Your task to perform on an android device: snooze an email in the gmail app Image 0: 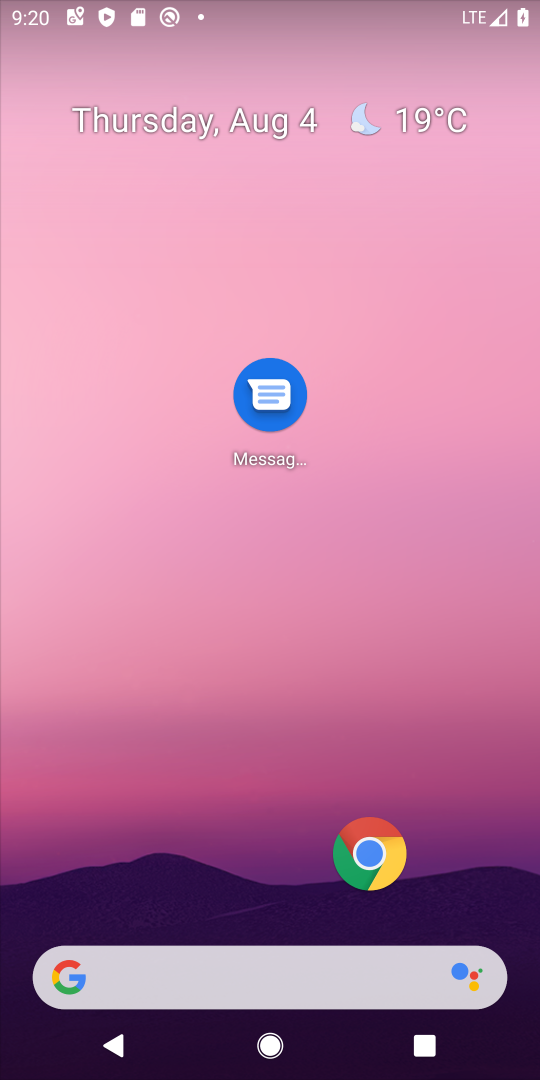
Step 0: drag from (215, 817) to (205, 380)
Your task to perform on an android device: snooze an email in the gmail app Image 1: 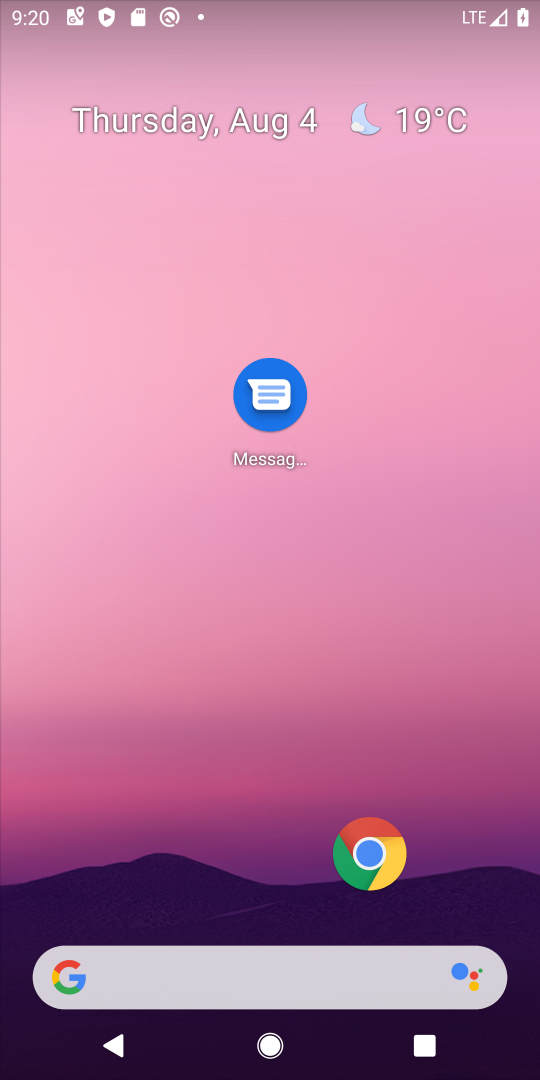
Step 1: drag from (264, 959) to (254, 288)
Your task to perform on an android device: snooze an email in the gmail app Image 2: 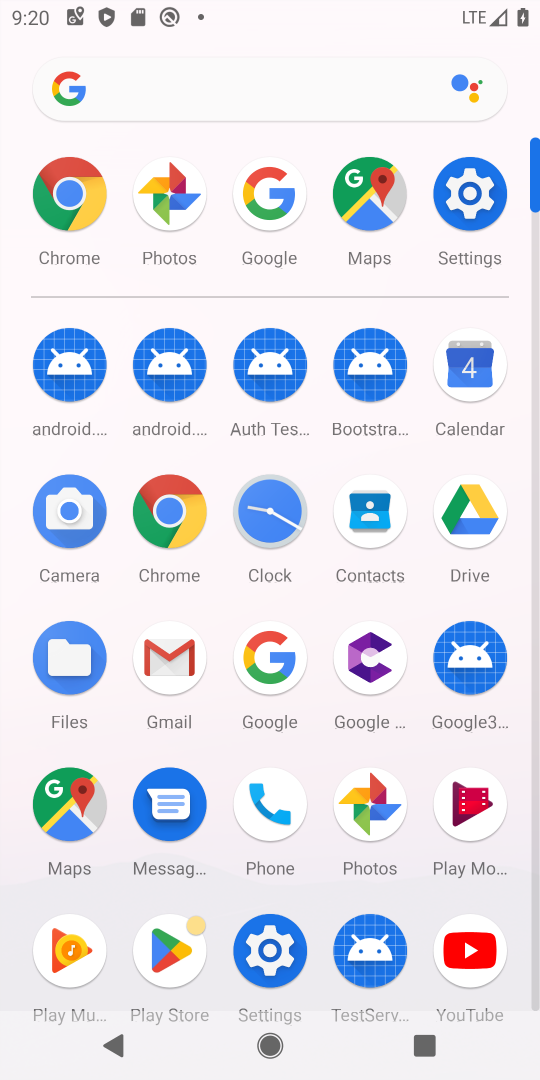
Step 2: click (166, 659)
Your task to perform on an android device: snooze an email in the gmail app Image 3: 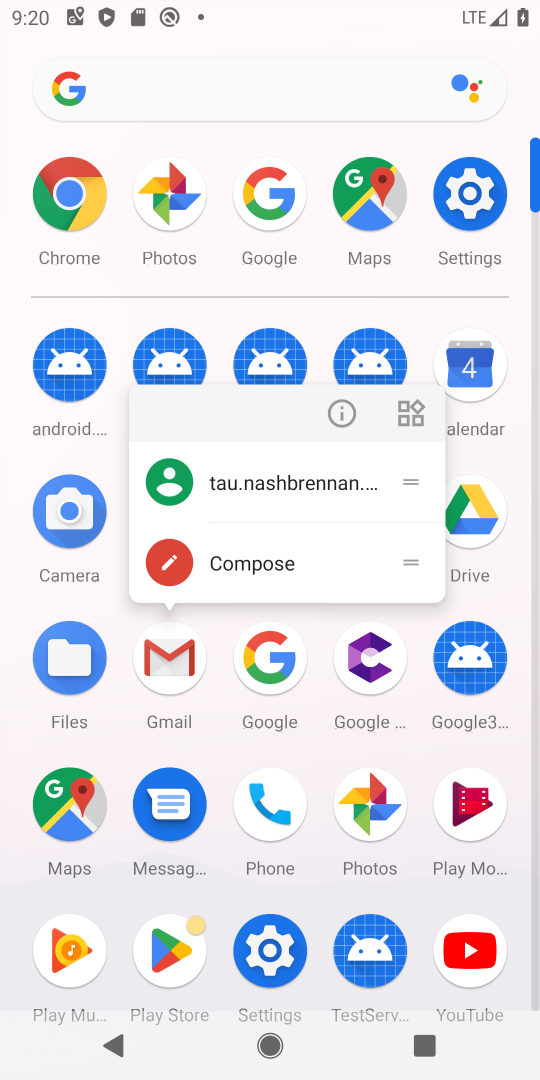
Step 3: click (166, 659)
Your task to perform on an android device: snooze an email in the gmail app Image 4: 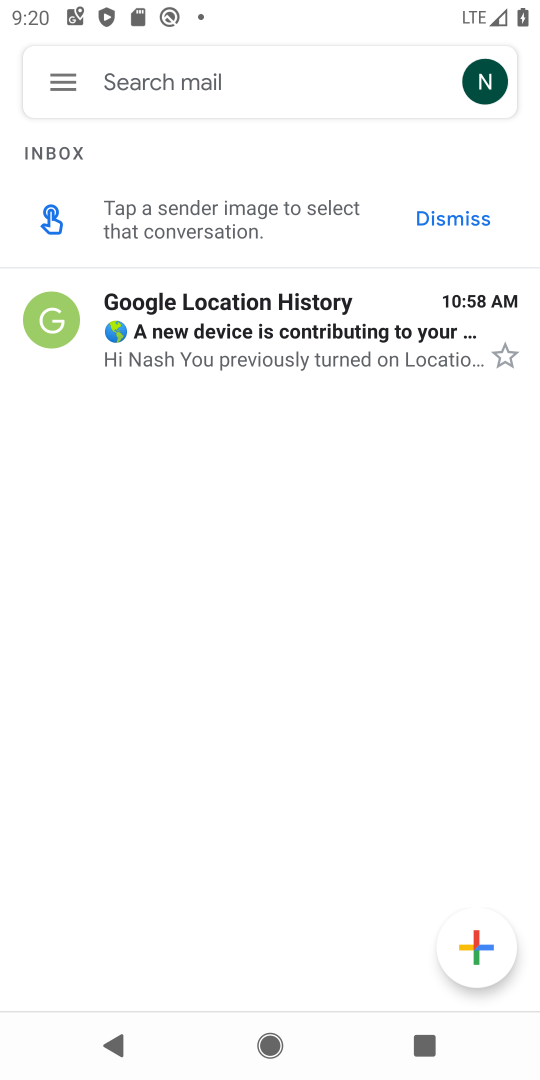
Step 4: click (64, 86)
Your task to perform on an android device: snooze an email in the gmail app Image 5: 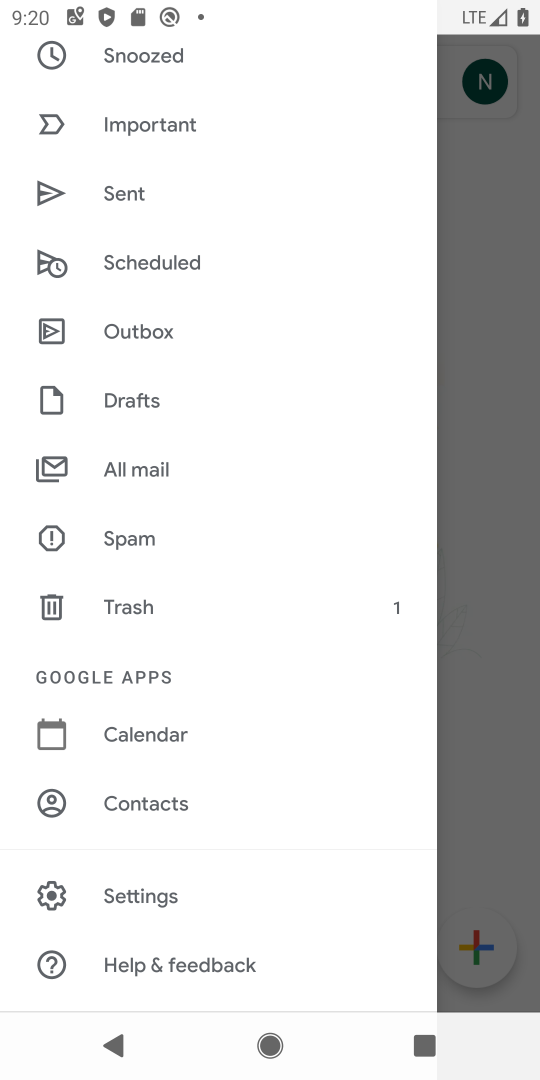
Step 5: drag from (148, 97) to (138, 746)
Your task to perform on an android device: snooze an email in the gmail app Image 6: 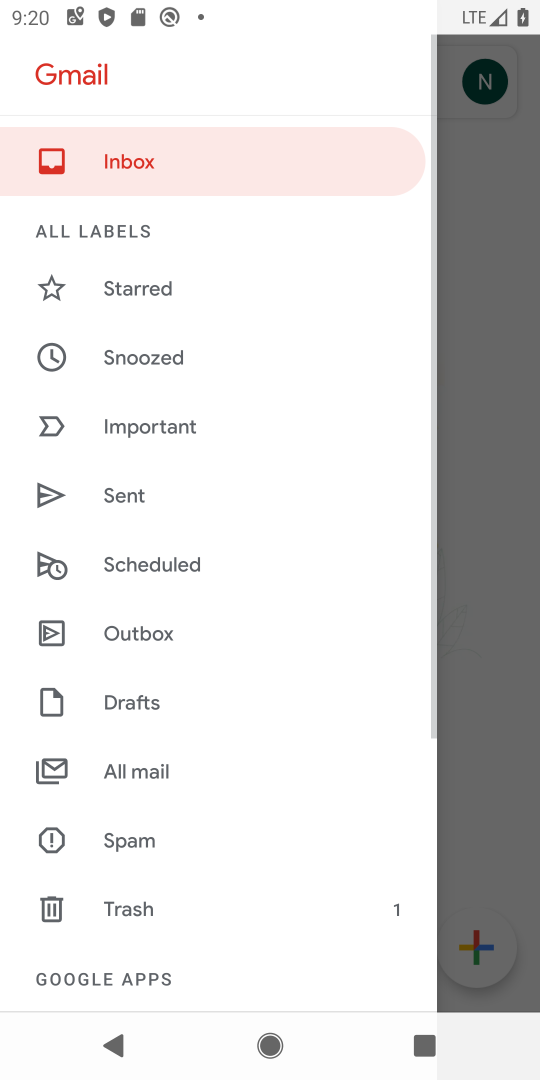
Step 6: click (89, 172)
Your task to perform on an android device: snooze an email in the gmail app Image 7: 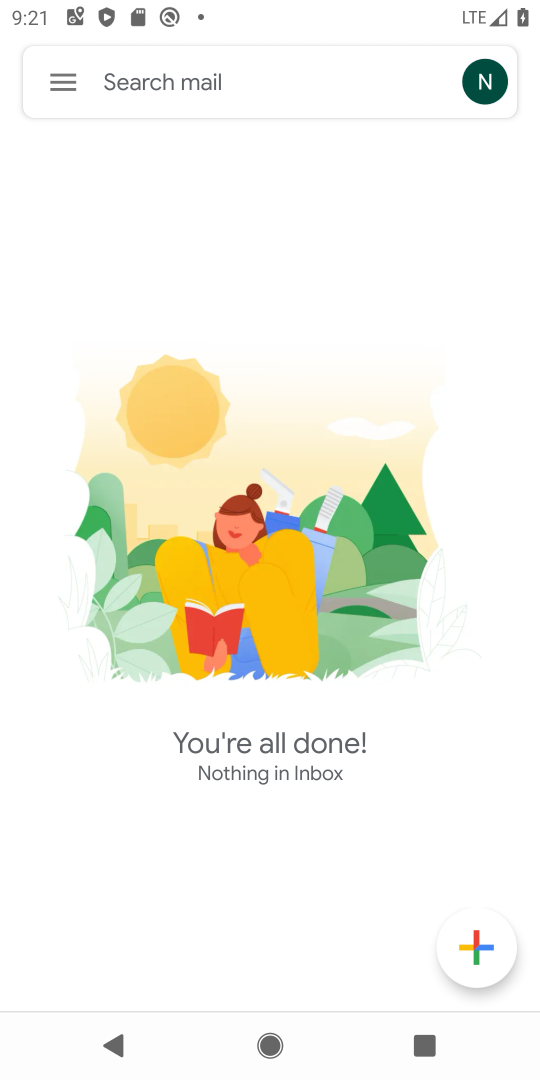
Step 7: task complete